Your task to perform on an android device: Search for pizza restaurants on Maps Image 0: 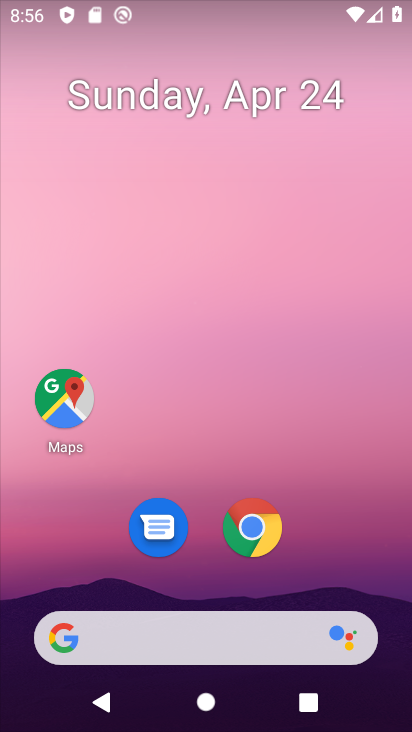
Step 0: click (61, 394)
Your task to perform on an android device: Search for pizza restaurants on Maps Image 1: 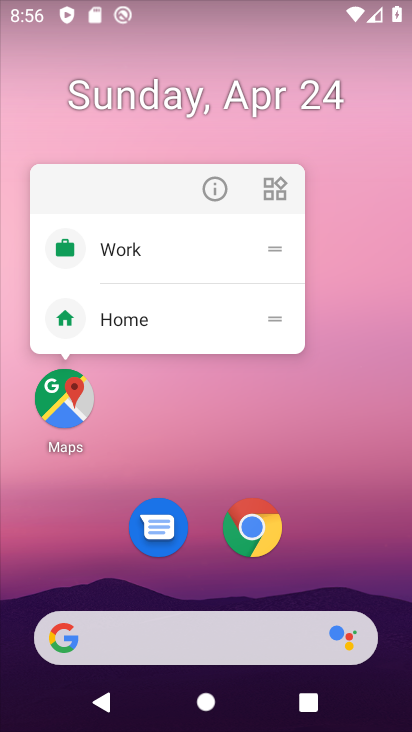
Step 1: click (70, 401)
Your task to perform on an android device: Search for pizza restaurants on Maps Image 2: 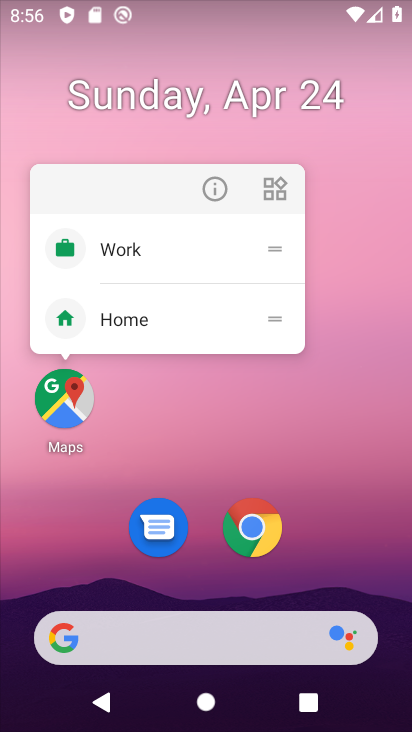
Step 2: click (63, 389)
Your task to perform on an android device: Search for pizza restaurants on Maps Image 3: 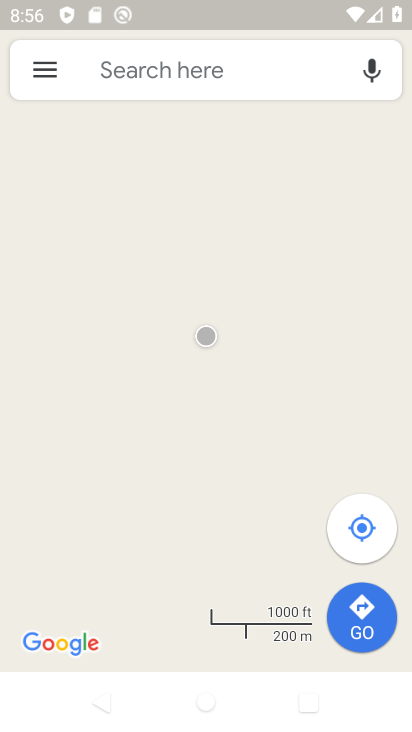
Step 3: click (168, 67)
Your task to perform on an android device: Search for pizza restaurants on Maps Image 4: 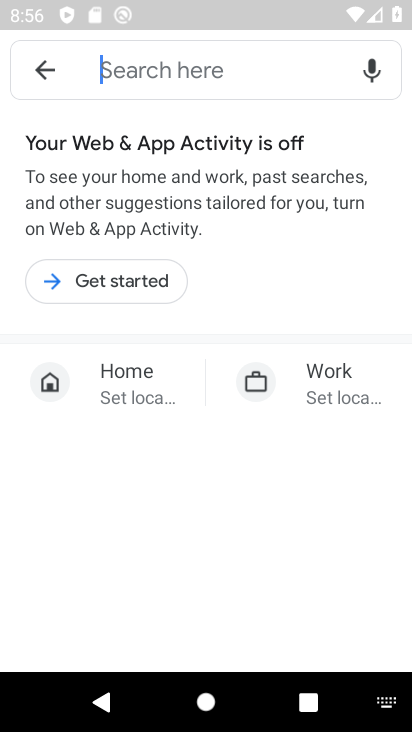
Step 4: click (164, 66)
Your task to perform on an android device: Search for pizza restaurants on Maps Image 5: 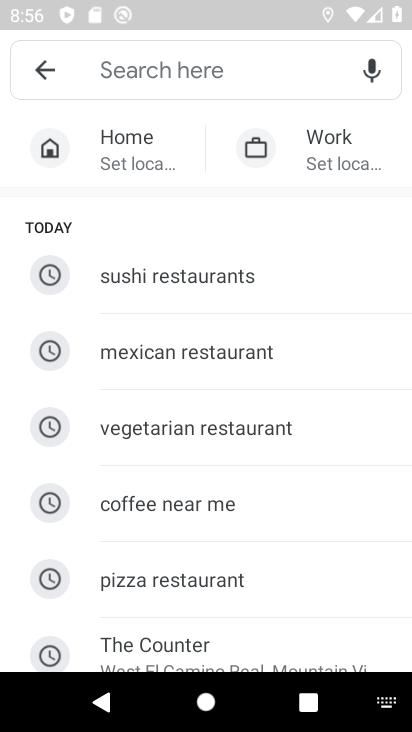
Step 5: type "pizza restaurant"
Your task to perform on an android device: Search for pizza restaurants on Maps Image 6: 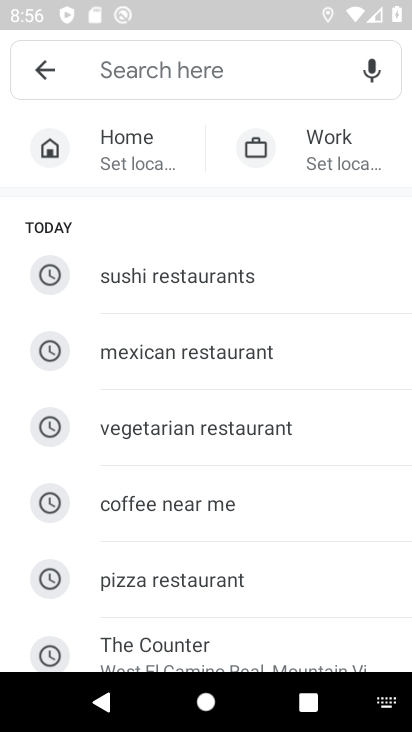
Step 6: click (202, 577)
Your task to perform on an android device: Search for pizza restaurants on Maps Image 7: 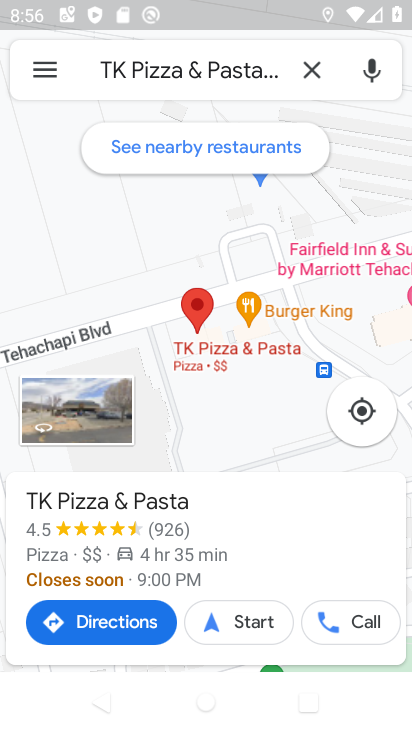
Step 7: task complete